Your task to perform on an android device: Open battery settings Image 0: 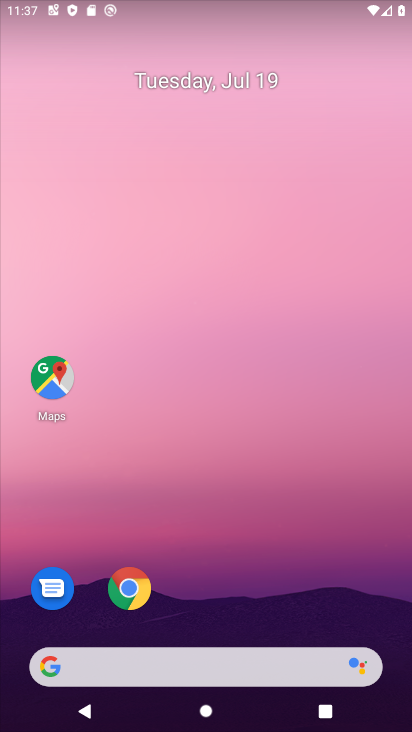
Step 0: drag from (213, 629) to (279, 99)
Your task to perform on an android device: Open battery settings Image 1: 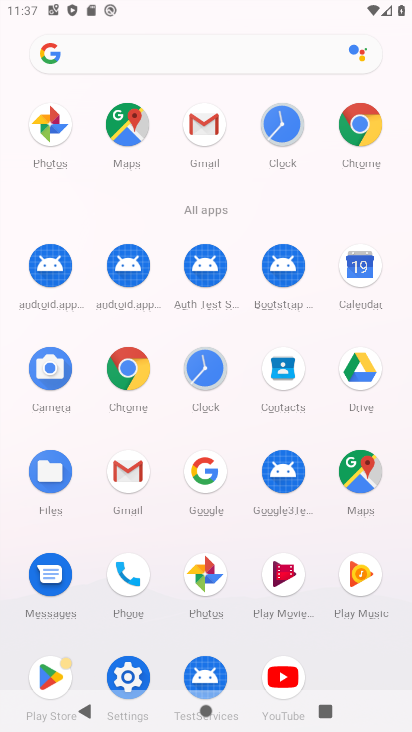
Step 1: click (139, 660)
Your task to perform on an android device: Open battery settings Image 2: 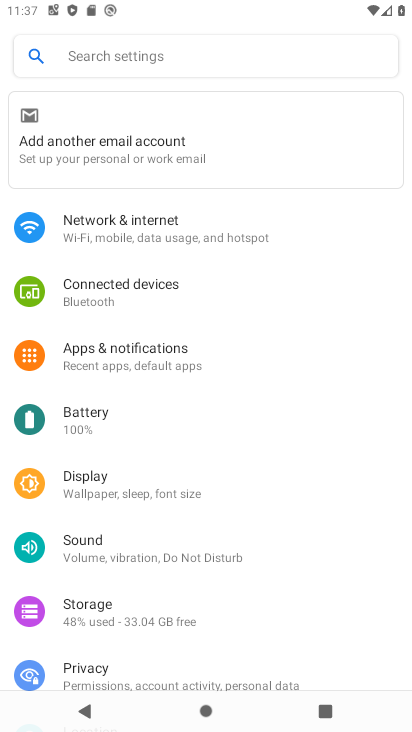
Step 2: click (98, 413)
Your task to perform on an android device: Open battery settings Image 3: 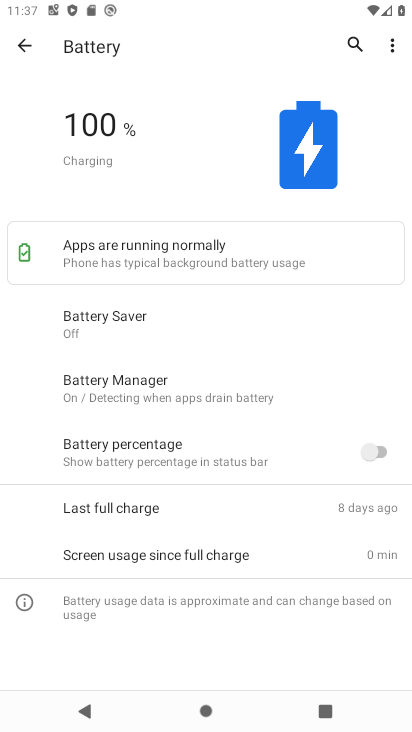
Step 3: task complete